Your task to perform on an android device: turn off picture-in-picture Image 0: 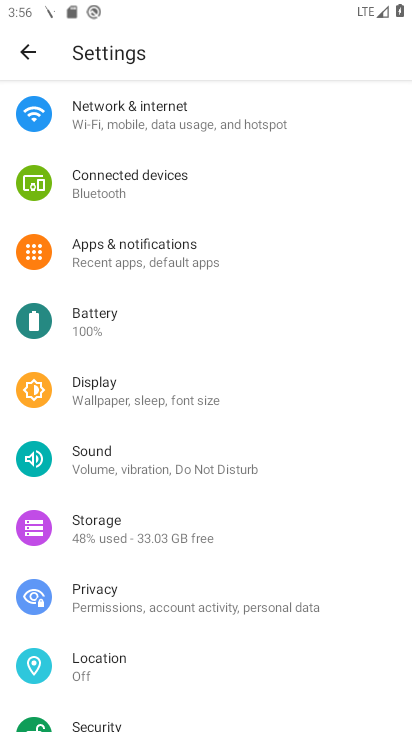
Step 0: click (150, 263)
Your task to perform on an android device: turn off picture-in-picture Image 1: 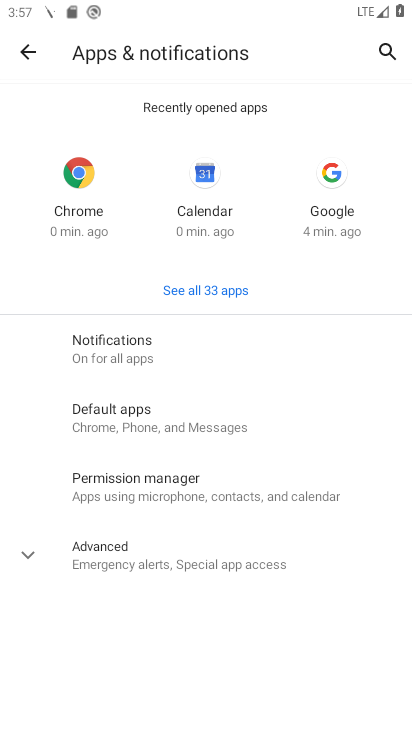
Step 1: click (195, 563)
Your task to perform on an android device: turn off picture-in-picture Image 2: 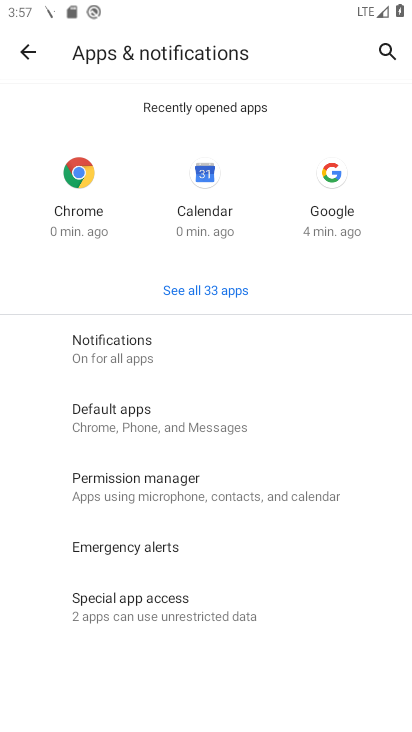
Step 2: click (184, 603)
Your task to perform on an android device: turn off picture-in-picture Image 3: 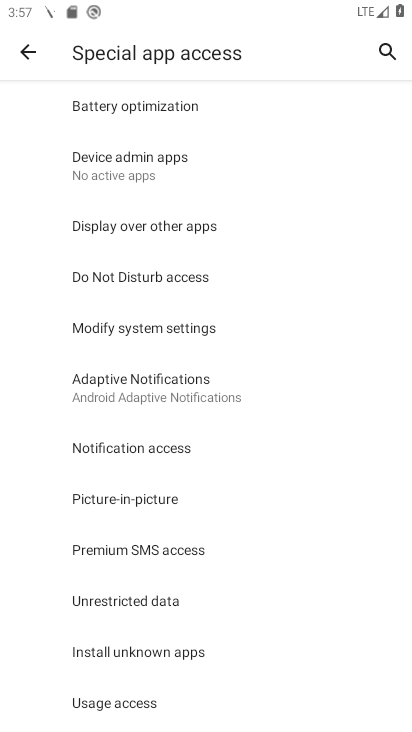
Step 3: click (148, 510)
Your task to perform on an android device: turn off picture-in-picture Image 4: 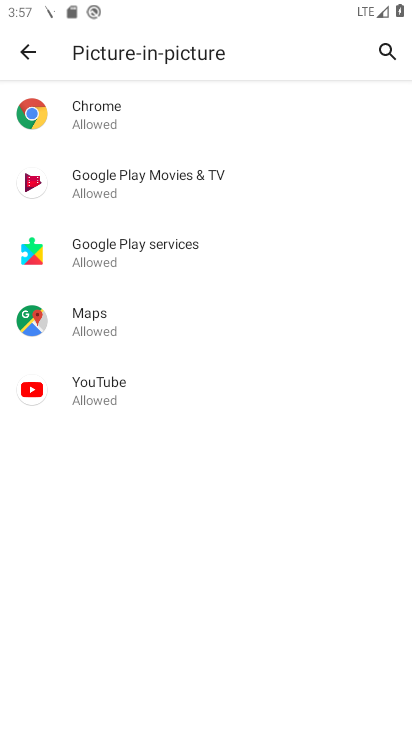
Step 4: click (111, 117)
Your task to perform on an android device: turn off picture-in-picture Image 5: 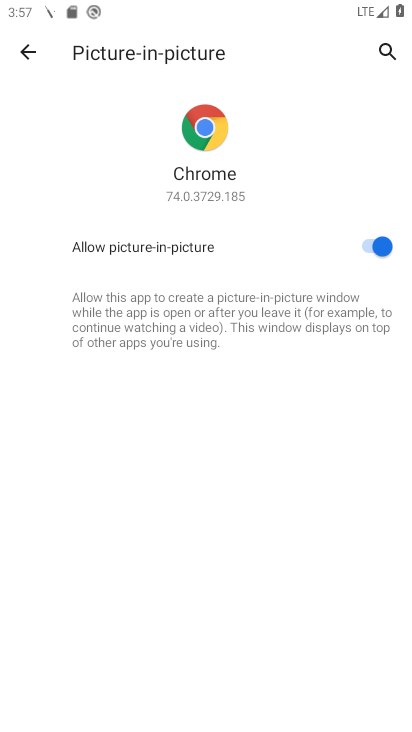
Step 5: click (358, 243)
Your task to perform on an android device: turn off picture-in-picture Image 6: 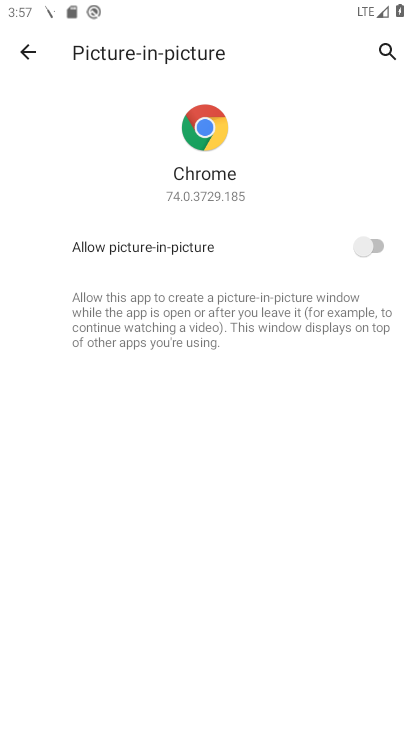
Step 6: press back button
Your task to perform on an android device: turn off picture-in-picture Image 7: 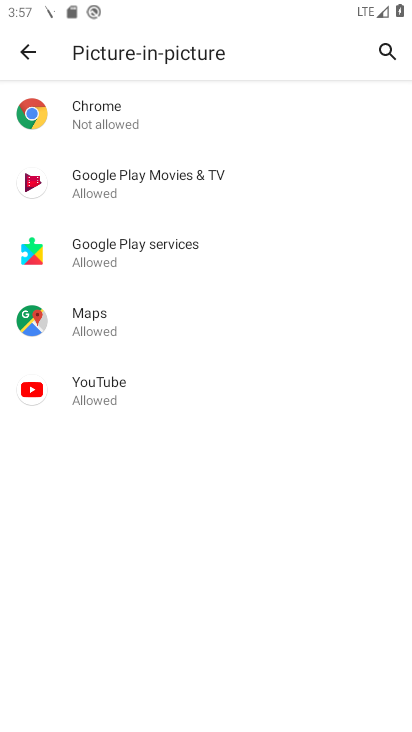
Step 7: click (271, 175)
Your task to perform on an android device: turn off picture-in-picture Image 8: 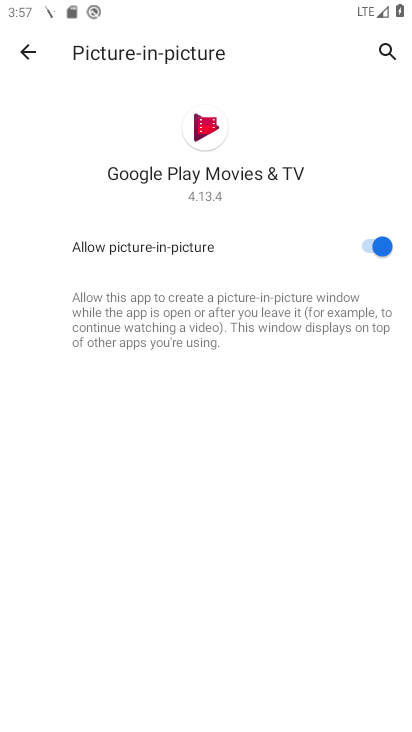
Step 8: click (369, 244)
Your task to perform on an android device: turn off picture-in-picture Image 9: 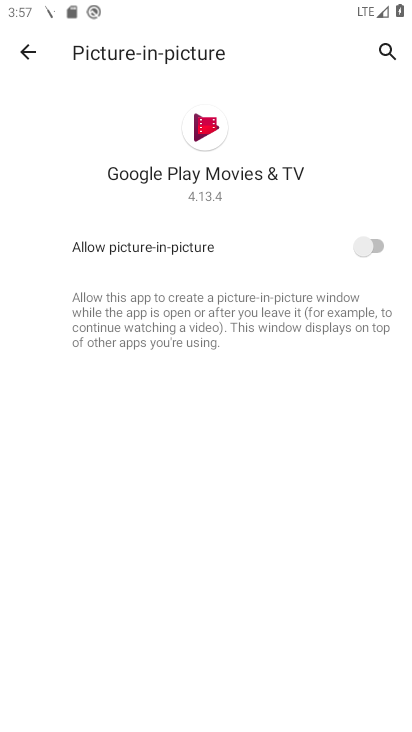
Step 9: press back button
Your task to perform on an android device: turn off picture-in-picture Image 10: 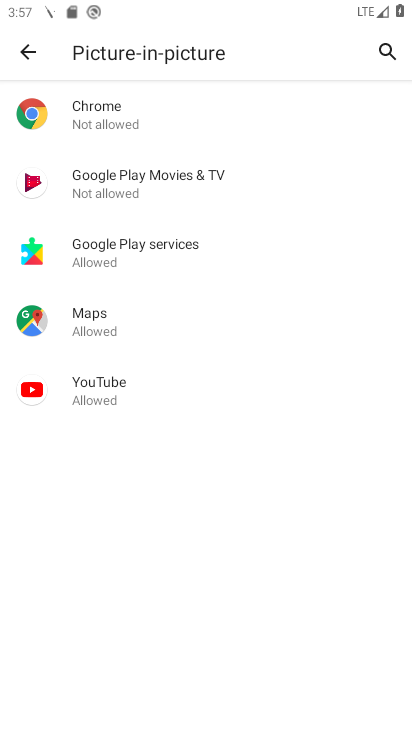
Step 10: click (267, 284)
Your task to perform on an android device: turn off picture-in-picture Image 11: 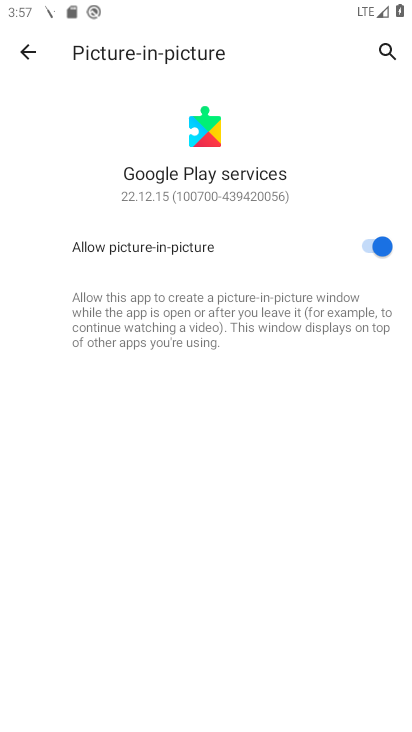
Step 11: click (371, 247)
Your task to perform on an android device: turn off picture-in-picture Image 12: 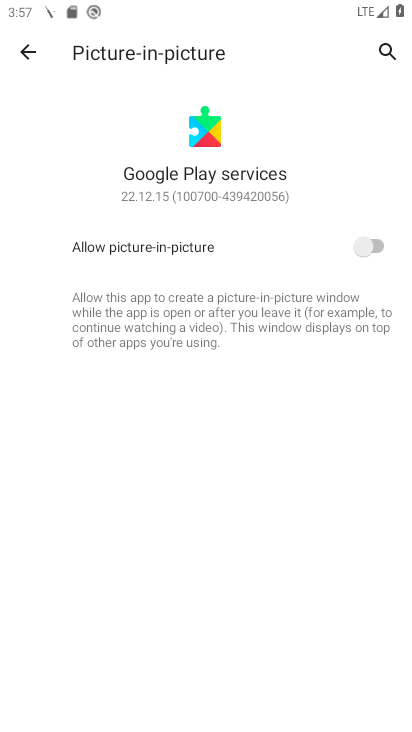
Step 12: press back button
Your task to perform on an android device: turn off picture-in-picture Image 13: 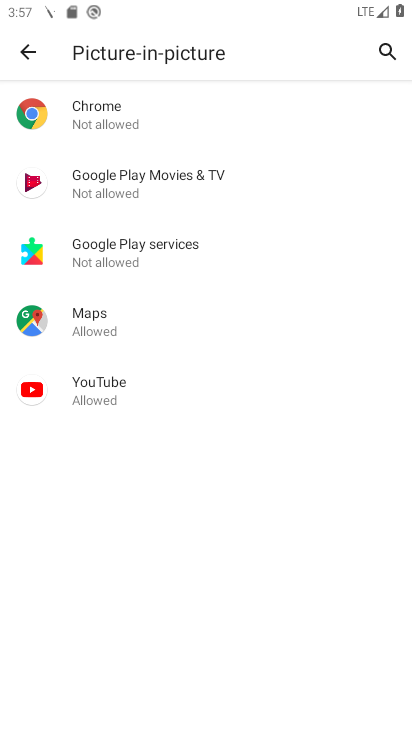
Step 13: click (232, 334)
Your task to perform on an android device: turn off picture-in-picture Image 14: 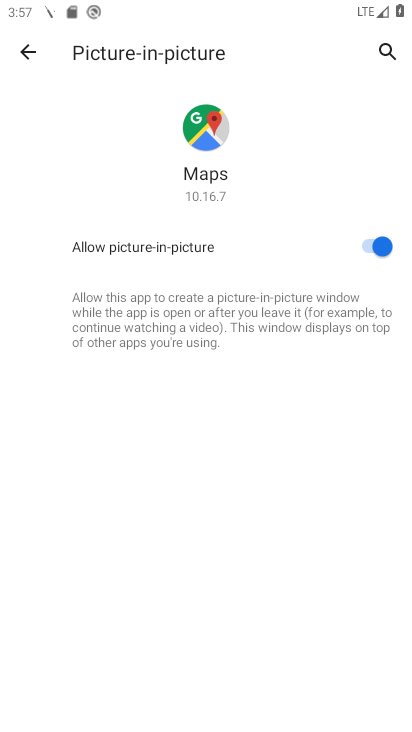
Step 14: click (373, 246)
Your task to perform on an android device: turn off picture-in-picture Image 15: 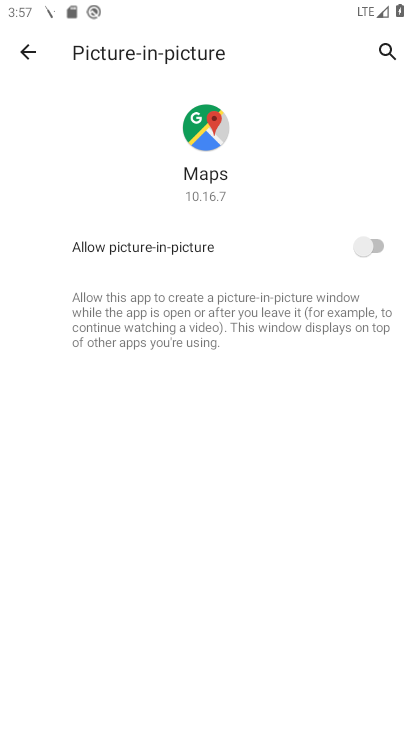
Step 15: press back button
Your task to perform on an android device: turn off picture-in-picture Image 16: 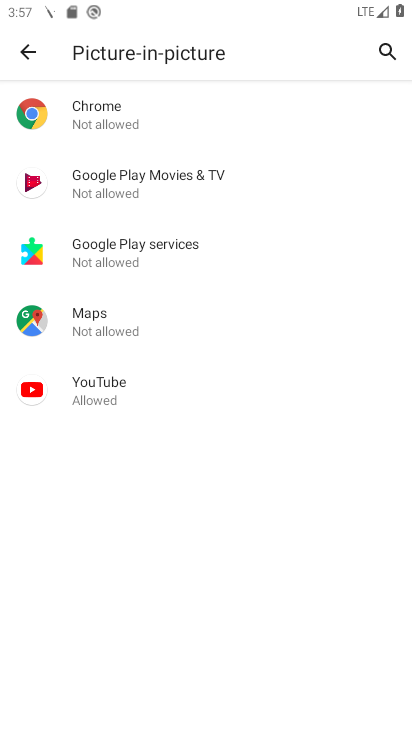
Step 16: click (217, 390)
Your task to perform on an android device: turn off picture-in-picture Image 17: 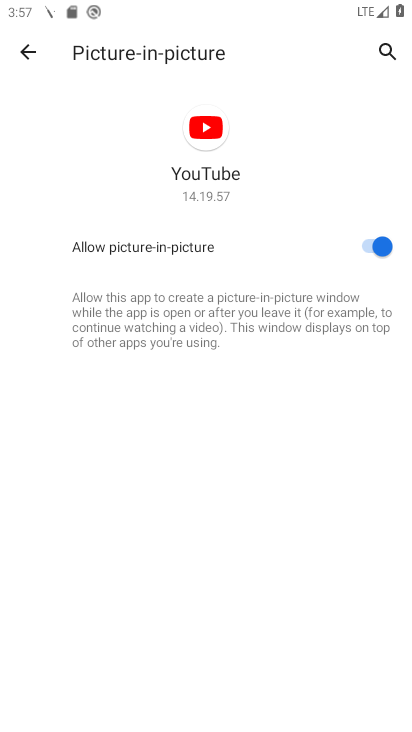
Step 17: click (367, 252)
Your task to perform on an android device: turn off picture-in-picture Image 18: 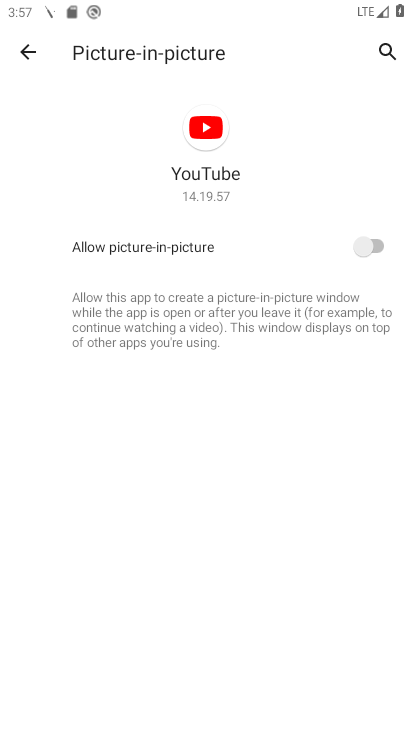
Step 18: task complete